Your task to perform on an android device: toggle notification dots Image 0: 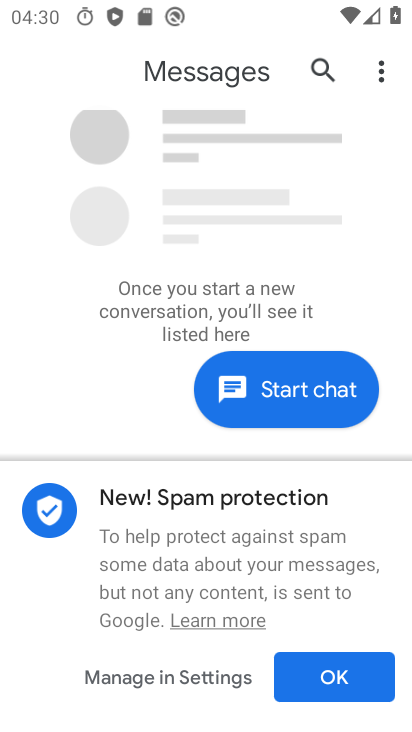
Step 0: press back button
Your task to perform on an android device: toggle notification dots Image 1: 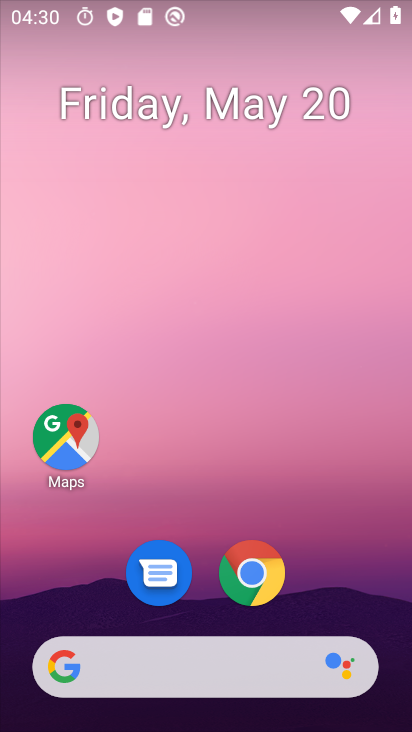
Step 1: drag from (367, 677) to (299, 16)
Your task to perform on an android device: toggle notification dots Image 2: 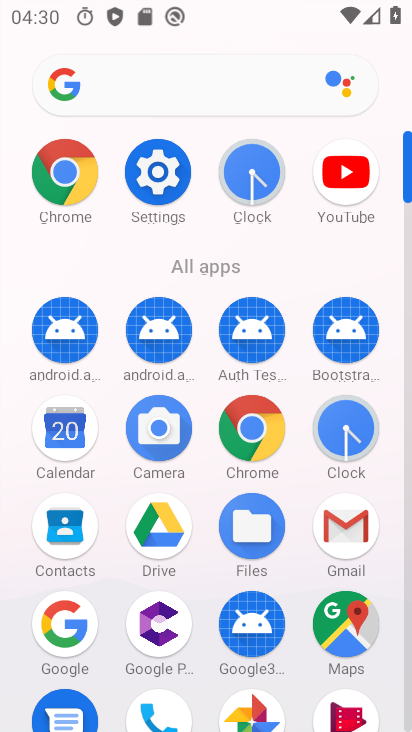
Step 2: click (143, 174)
Your task to perform on an android device: toggle notification dots Image 3: 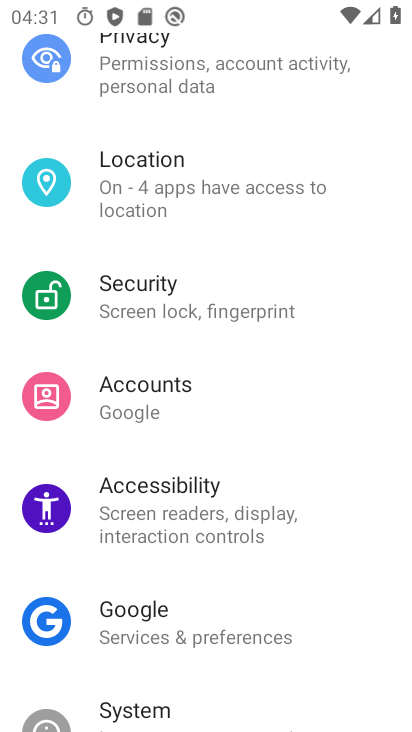
Step 3: drag from (220, 531) to (212, 282)
Your task to perform on an android device: toggle notification dots Image 4: 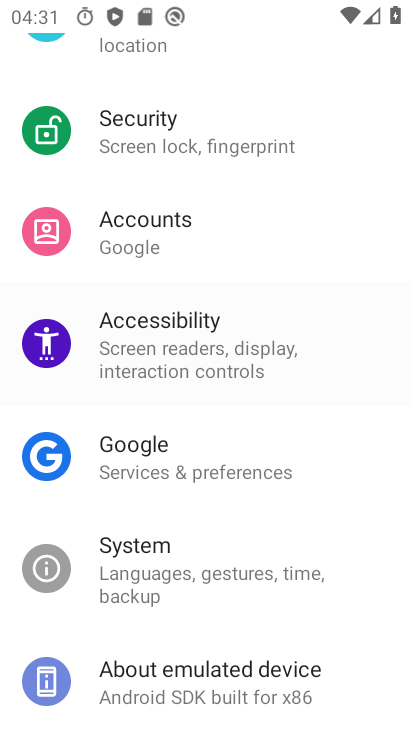
Step 4: drag from (255, 497) to (172, 104)
Your task to perform on an android device: toggle notification dots Image 5: 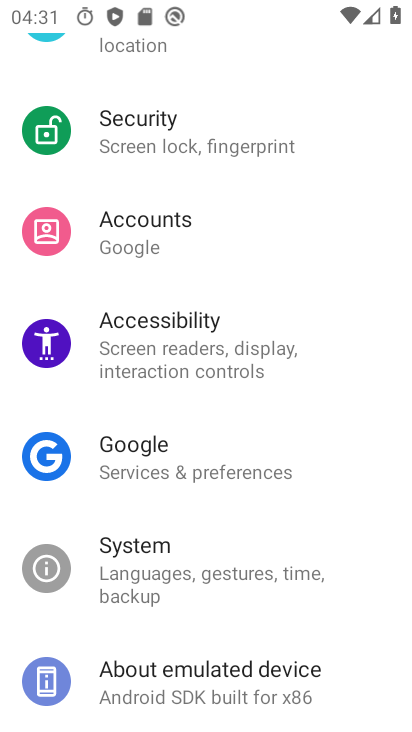
Step 5: drag from (169, 286) to (176, 501)
Your task to perform on an android device: toggle notification dots Image 6: 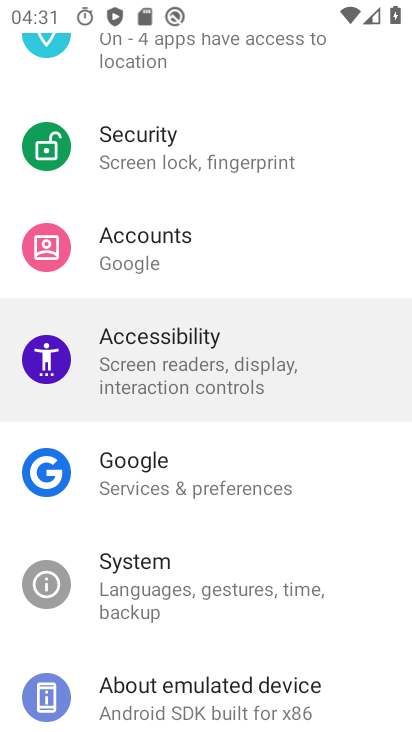
Step 6: drag from (107, 360) to (141, 505)
Your task to perform on an android device: toggle notification dots Image 7: 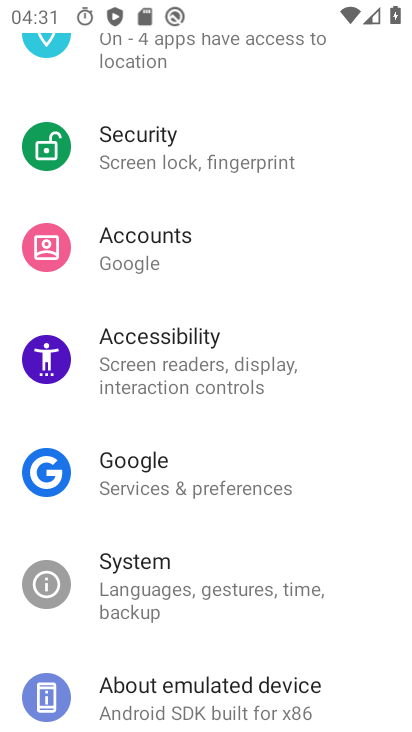
Step 7: drag from (160, 254) to (219, 533)
Your task to perform on an android device: toggle notification dots Image 8: 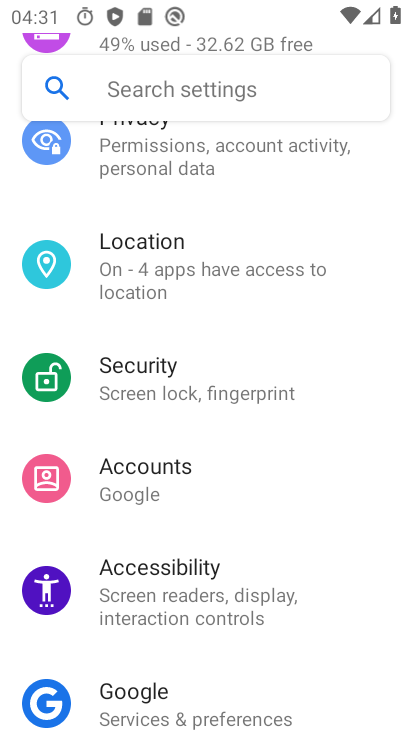
Step 8: drag from (131, 284) to (168, 507)
Your task to perform on an android device: toggle notification dots Image 9: 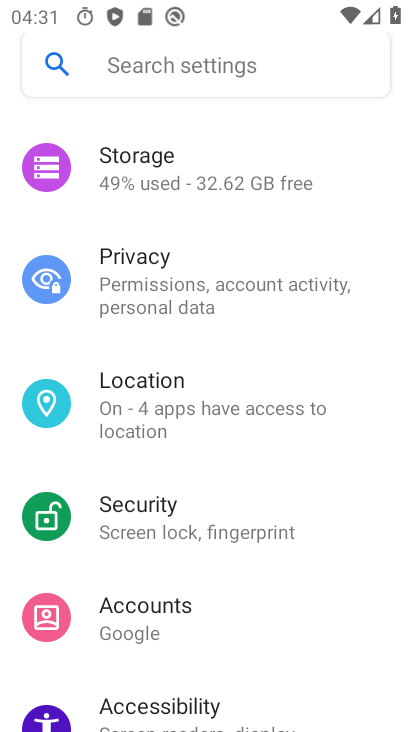
Step 9: drag from (175, 279) to (266, 608)
Your task to perform on an android device: toggle notification dots Image 10: 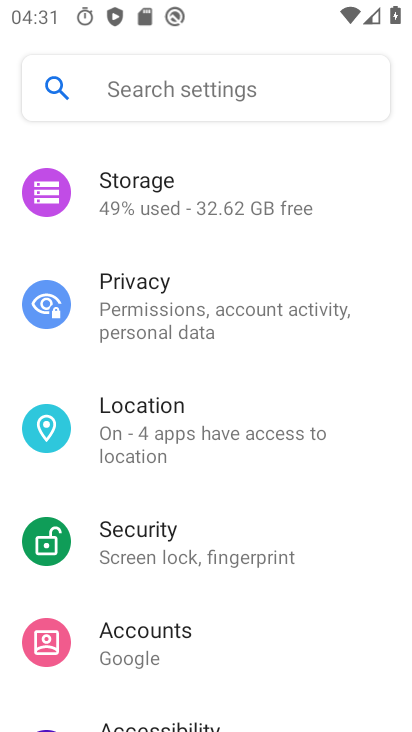
Step 10: drag from (233, 303) to (275, 605)
Your task to perform on an android device: toggle notification dots Image 11: 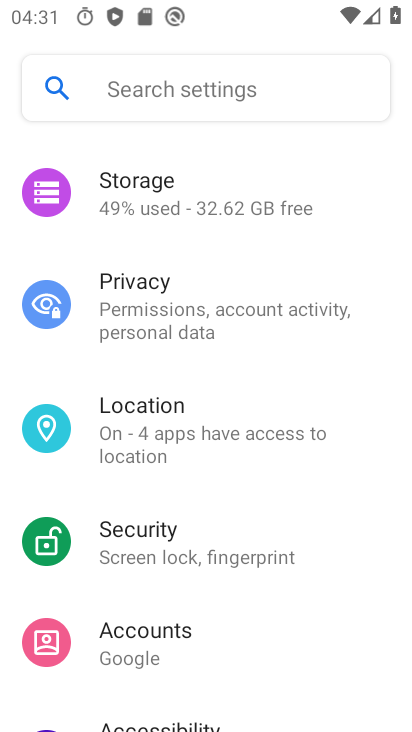
Step 11: drag from (211, 272) to (248, 540)
Your task to perform on an android device: toggle notification dots Image 12: 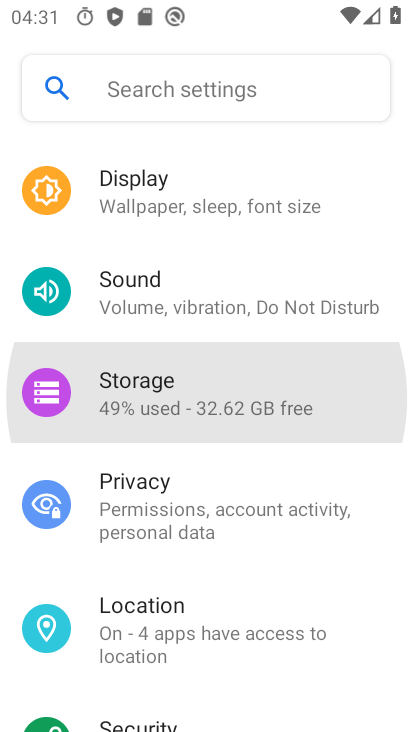
Step 12: drag from (198, 202) to (237, 522)
Your task to perform on an android device: toggle notification dots Image 13: 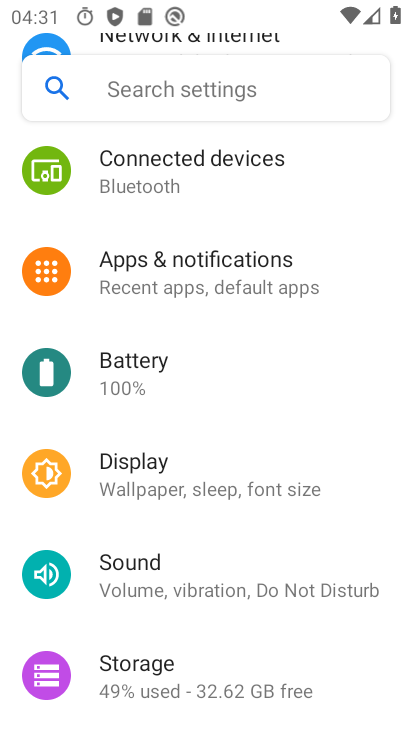
Step 13: drag from (130, 314) to (172, 491)
Your task to perform on an android device: toggle notification dots Image 14: 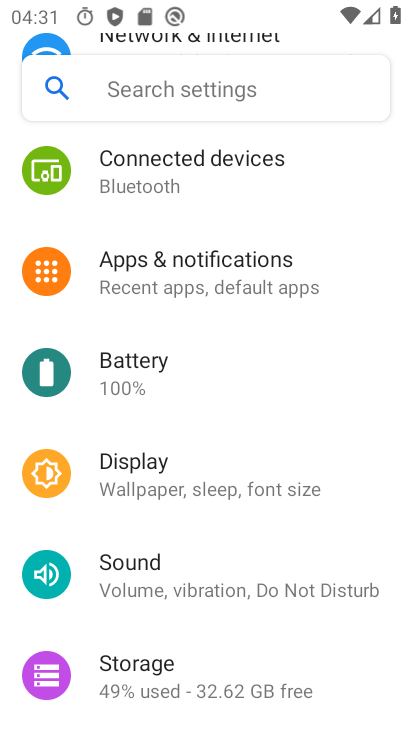
Step 14: click (169, 282)
Your task to perform on an android device: toggle notification dots Image 15: 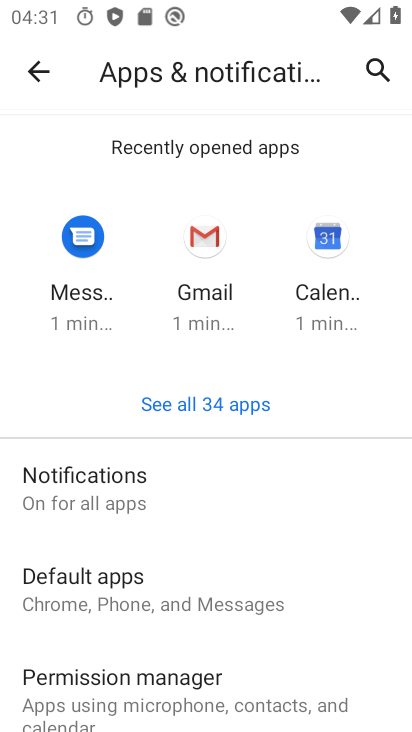
Step 15: click (97, 504)
Your task to perform on an android device: toggle notification dots Image 16: 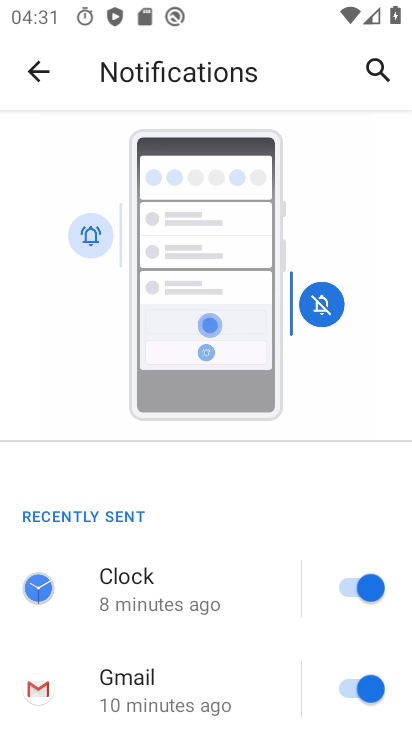
Step 16: drag from (188, 521) to (212, 169)
Your task to perform on an android device: toggle notification dots Image 17: 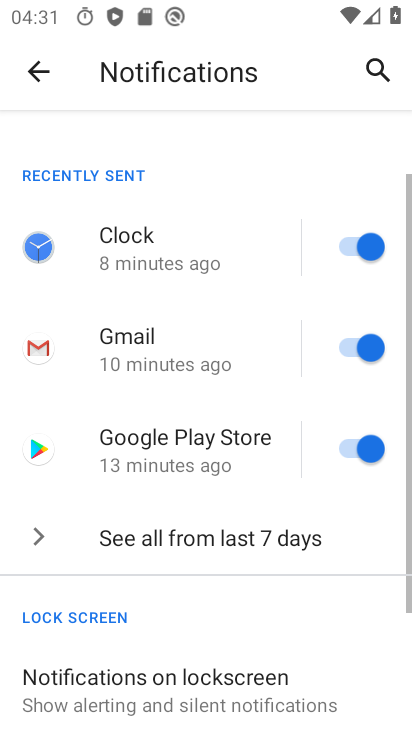
Step 17: drag from (233, 444) to (197, 148)
Your task to perform on an android device: toggle notification dots Image 18: 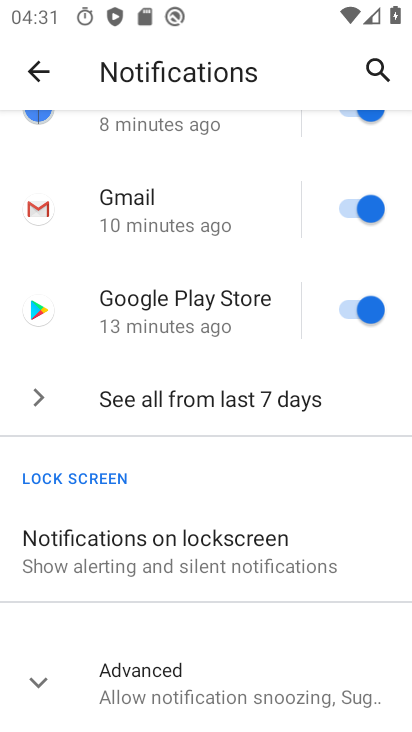
Step 18: drag from (172, 592) to (123, 151)
Your task to perform on an android device: toggle notification dots Image 19: 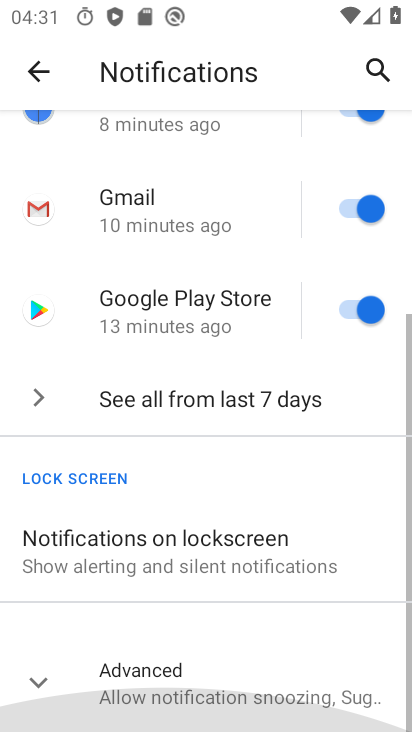
Step 19: drag from (228, 416) to (221, 108)
Your task to perform on an android device: toggle notification dots Image 20: 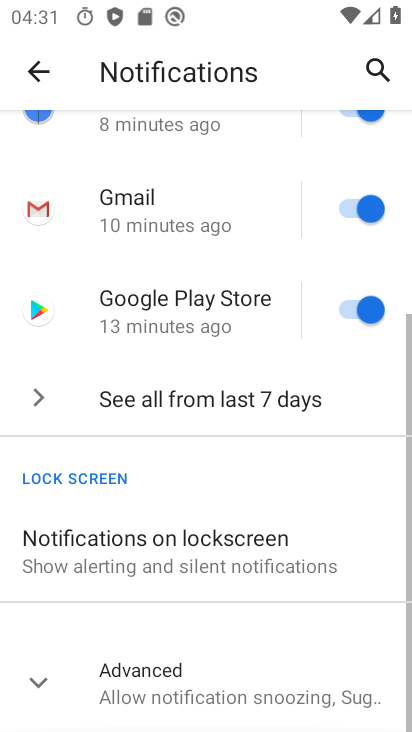
Step 20: drag from (213, 438) to (247, 180)
Your task to perform on an android device: toggle notification dots Image 21: 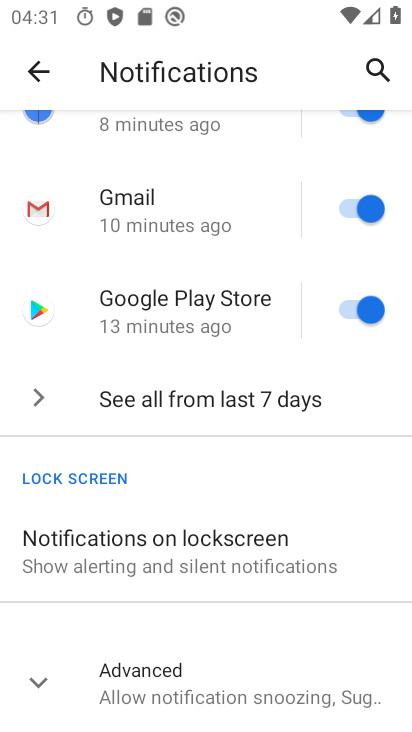
Step 21: drag from (180, 577) to (223, 193)
Your task to perform on an android device: toggle notification dots Image 22: 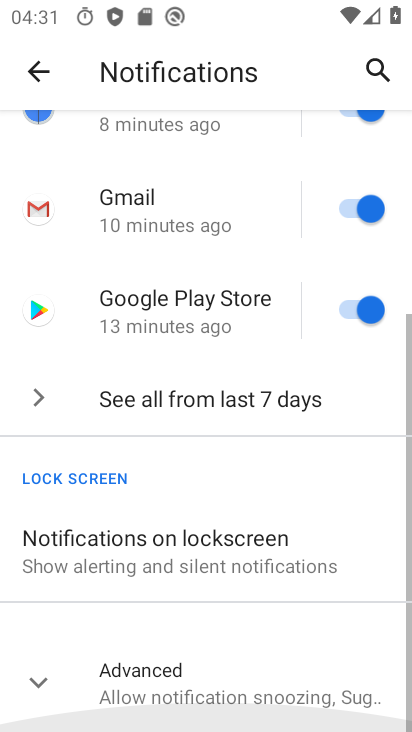
Step 22: drag from (238, 527) to (225, 168)
Your task to perform on an android device: toggle notification dots Image 23: 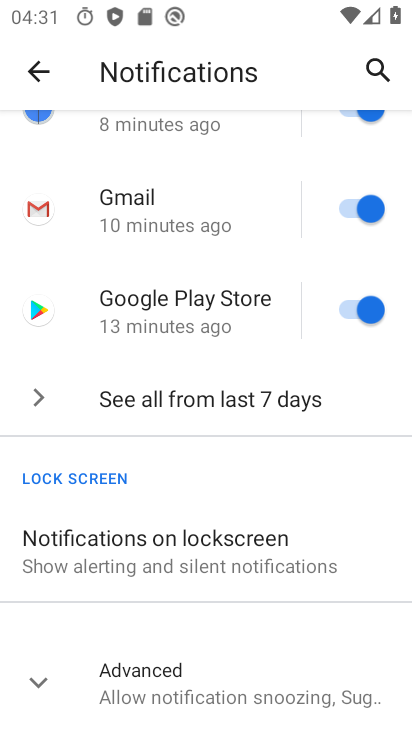
Step 23: drag from (180, 549) to (174, 118)
Your task to perform on an android device: toggle notification dots Image 24: 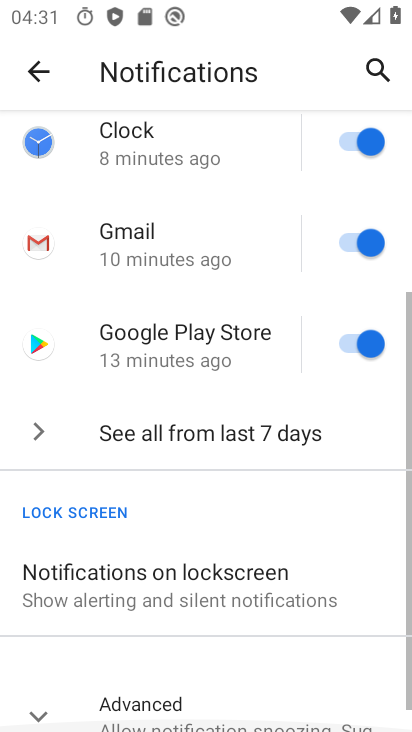
Step 24: drag from (163, 431) to (174, 217)
Your task to perform on an android device: toggle notification dots Image 25: 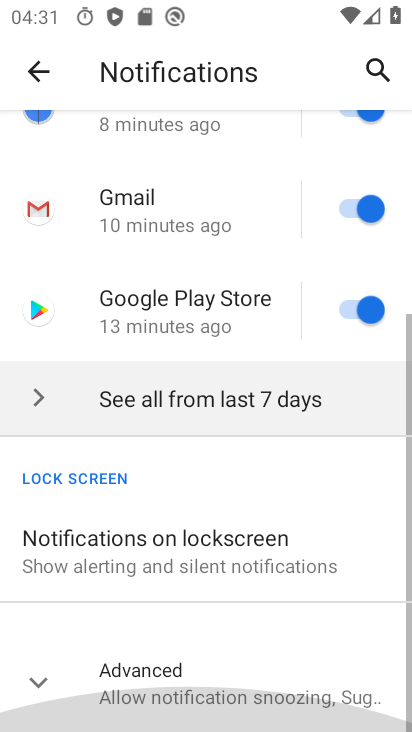
Step 25: drag from (216, 433) to (182, 27)
Your task to perform on an android device: toggle notification dots Image 26: 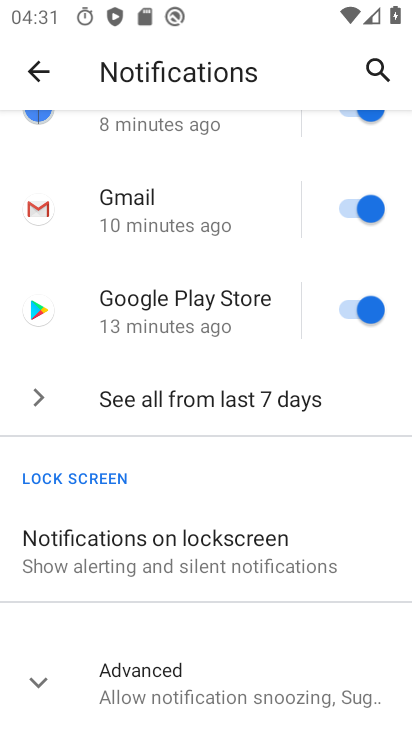
Step 26: click (173, 684)
Your task to perform on an android device: toggle notification dots Image 27: 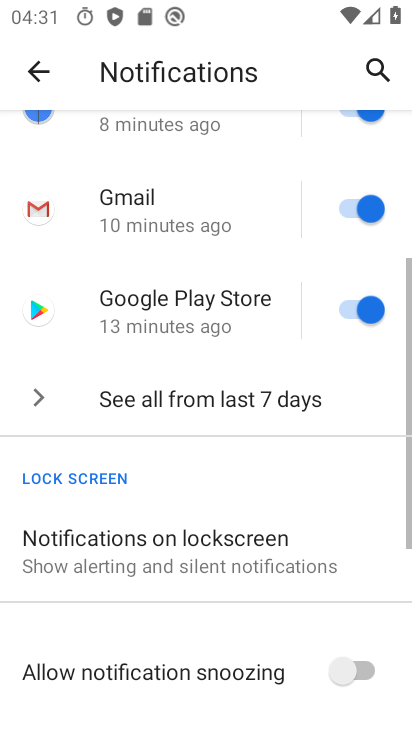
Step 27: drag from (230, 543) to (187, 54)
Your task to perform on an android device: toggle notification dots Image 28: 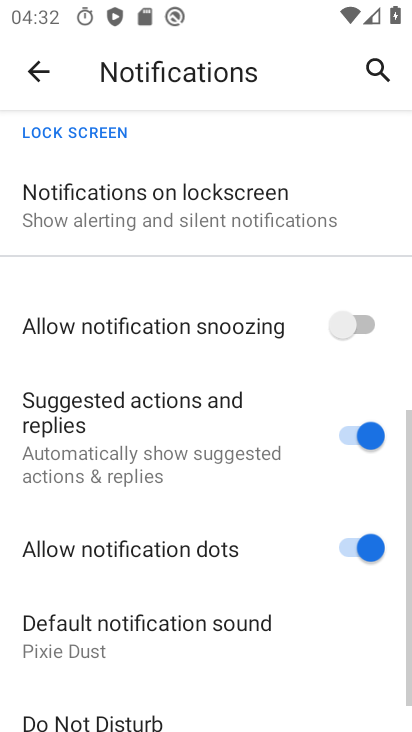
Step 28: drag from (252, 554) to (173, 88)
Your task to perform on an android device: toggle notification dots Image 29: 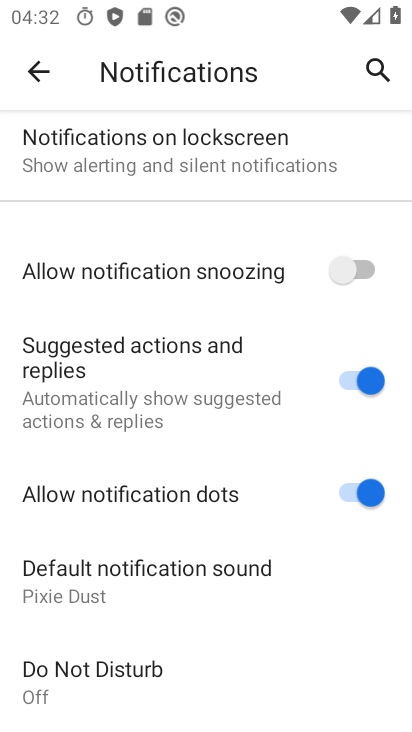
Step 29: click (375, 497)
Your task to perform on an android device: toggle notification dots Image 30: 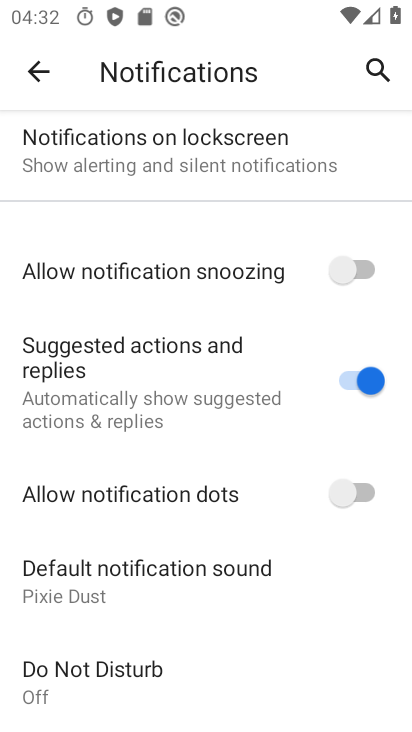
Step 30: task complete